Your task to perform on an android device: Show the shopping cart on target. Search for "logitech g pro" on target, select the first entry, and add it to the cart. Image 0: 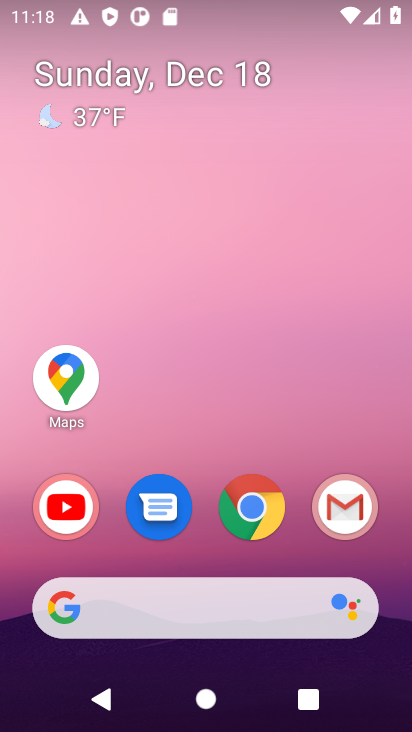
Step 0: click (257, 509)
Your task to perform on an android device: Show the shopping cart on target. Search for "logitech g pro" on target, select the first entry, and add it to the cart. Image 1: 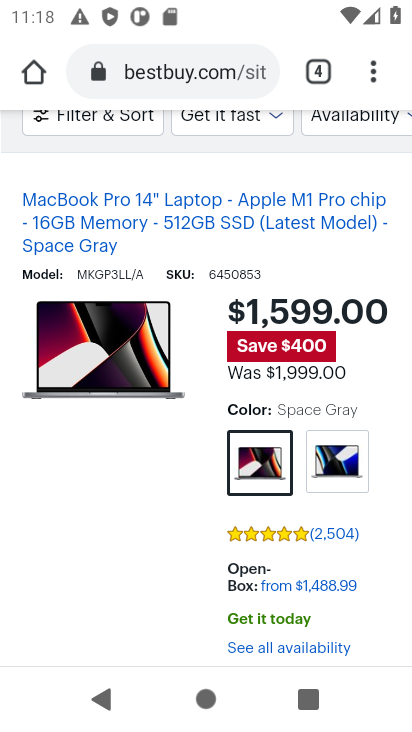
Step 1: click (158, 72)
Your task to perform on an android device: Show the shopping cart on target. Search for "logitech g pro" on target, select the first entry, and add it to the cart. Image 2: 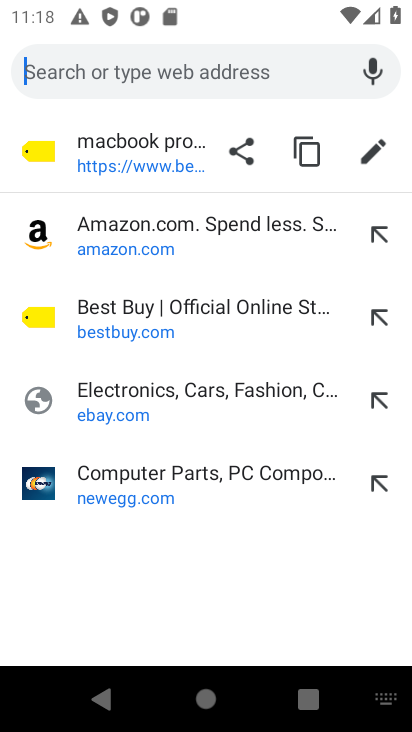
Step 2: type "target.com"
Your task to perform on an android device: Show the shopping cart on target. Search for "logitech g pro" on target, select the first entry, and add it to the cart. Image 3: 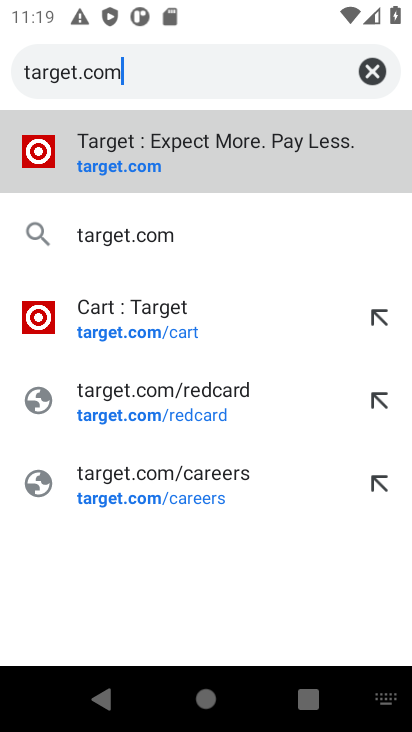
Step 3: click (117, 169)
Your task to perform on an android device: Show the shopping cart on target. Search for "logitech g pro" on target, select the first entry, and add it to the cart. Image 4: 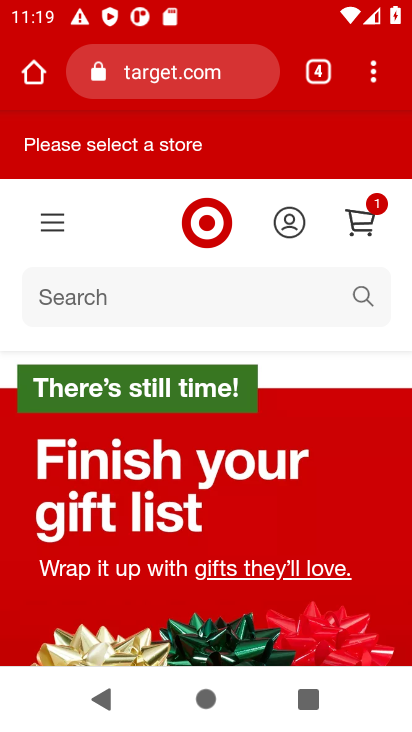
Step 4: click (363, 230)
Your task to perform on an android device: Show the shopping cart on target. Search for "logitech g pro" on target, select the first entry, and add it to the cart. Image 5: 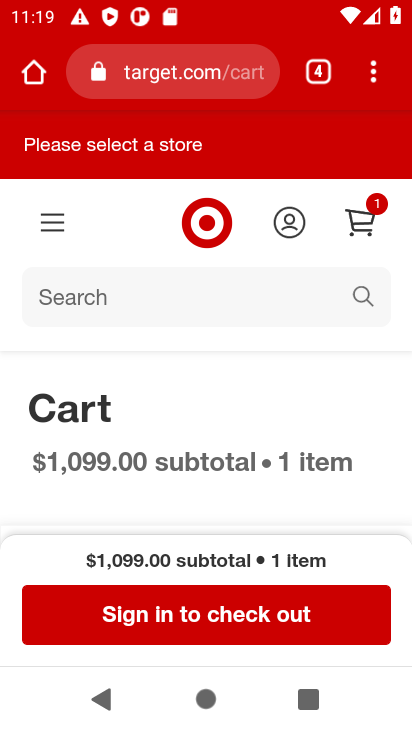
Step 5: click (59, 294)
Your task to perform on an android device: Show the shopping cart on target. Search for "logitech g pro" on target, select the first entry, and add it to the cart. Image 6: 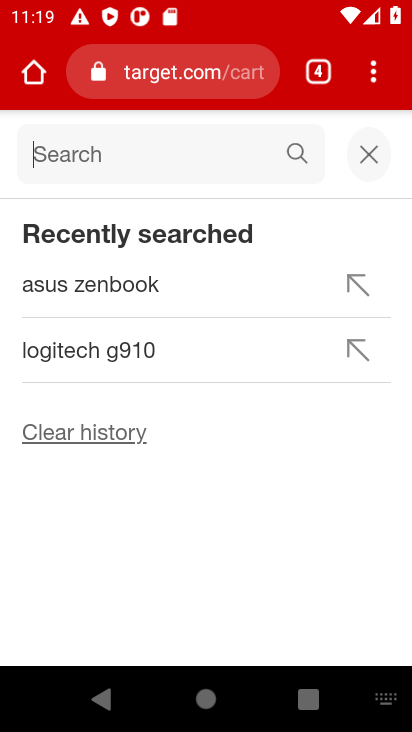
Step 6: type "logitech g pro"
Your task to perform on an android device: Show the shopping cart on target. Search for "logitech g pro" on target, select the first entry, and add it to the cart. Image 7: 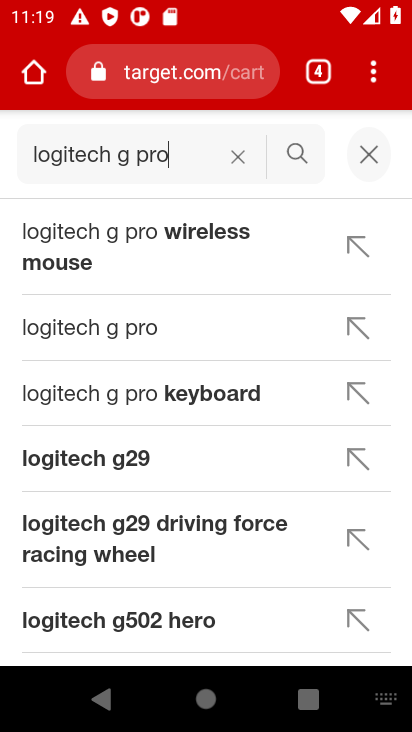
Step 7: click (131, 324)
Your task to perform on an android device: Show the shopping cart on target. Search for "logitech g pro" on target, select the first entry, and add it to the cart. Image 8: 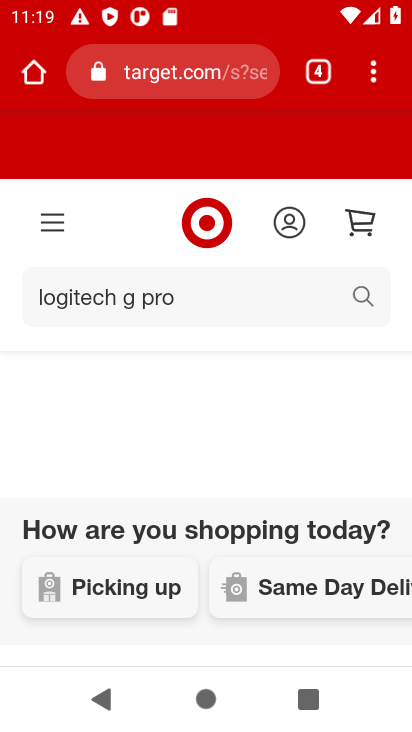
Step 8: task complete